Your task to perform on an android device: Is it going to rain today? Image 0: 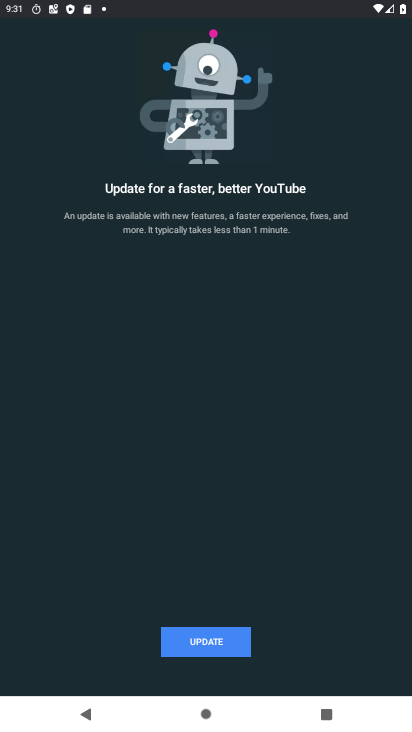
Step 0: press home button
Your task to perform on an android device: Is it going to rain today? Image 1: 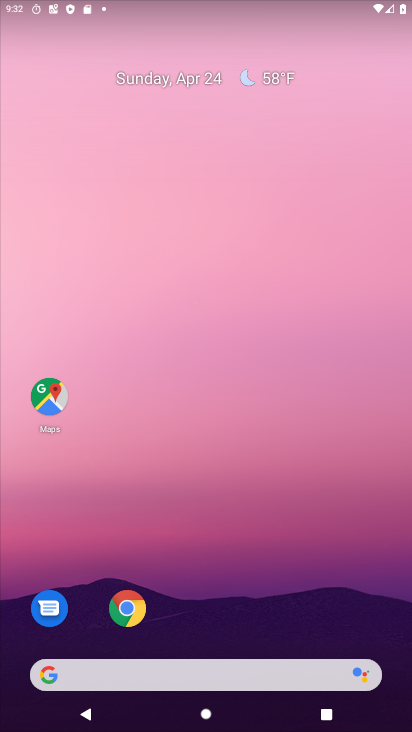
Step 1: click (248, 675)
Your task to perform on an android device: Is it going to rain today? Image 2: 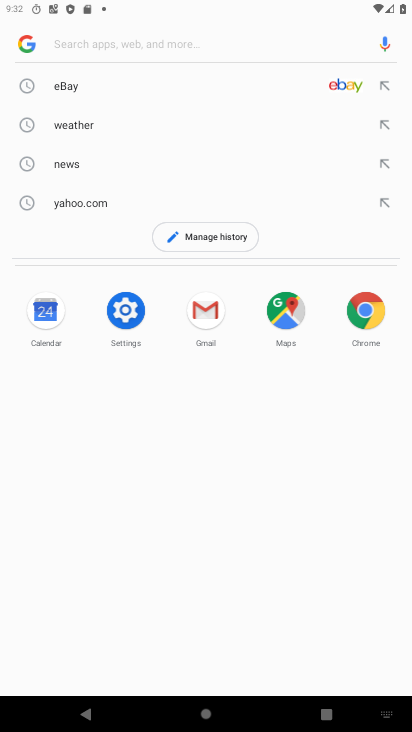
Step 2: click (78, 127)
Your task to perform on an android device: Is it going to rain today? Image 3: 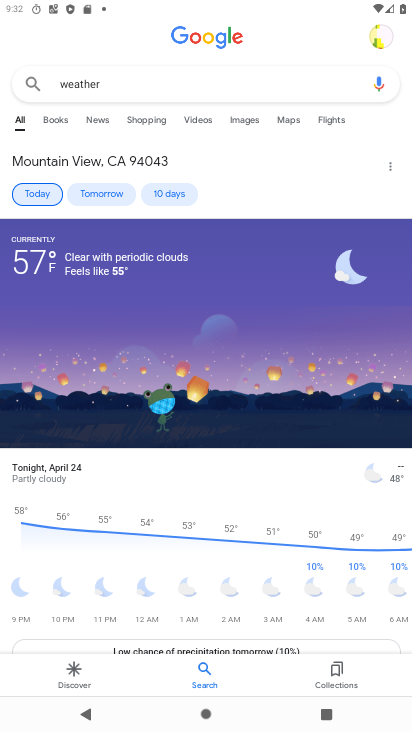
Step 3: task complete